Your task to perform on an android device: Go to location settings Image 0: 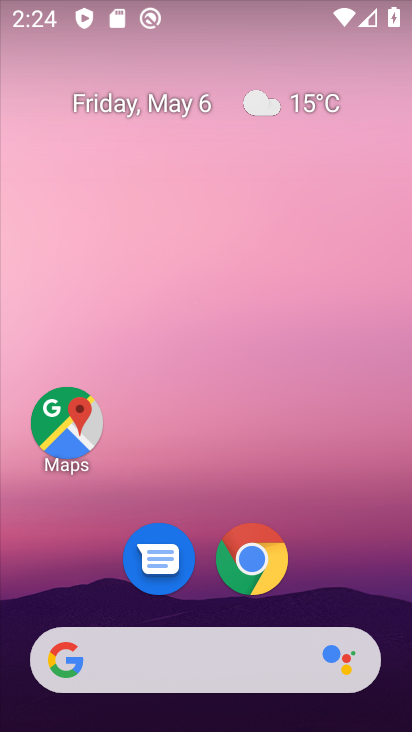
Step 0: drag from (311, 581) to (297, 91)
Your task to perform on an android device: Go to location settings Image 1: 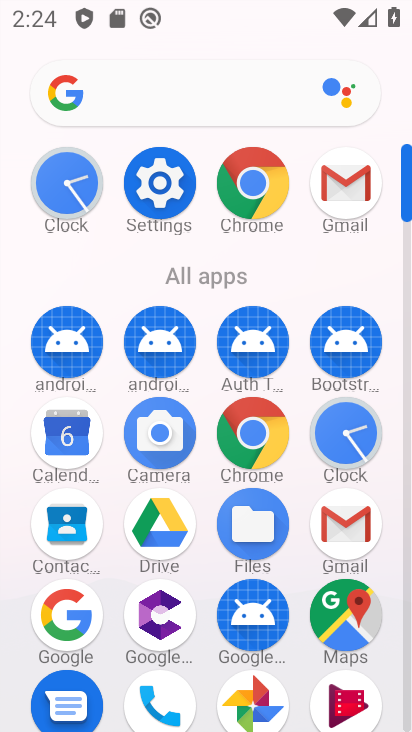
Step 1: click (144, 201)
Your task to perform on an android device: Go to location settings Image 2: 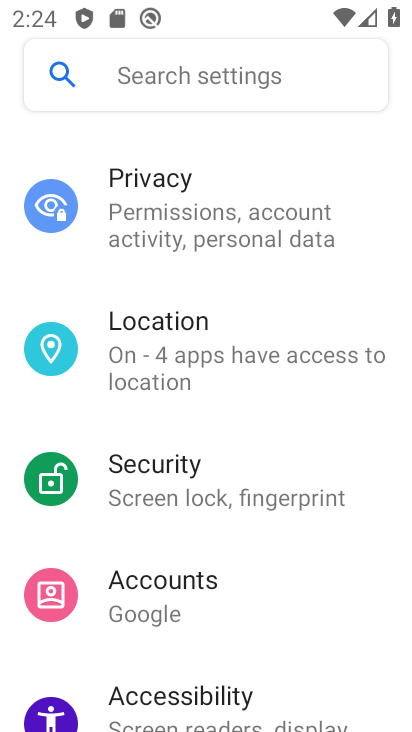
Step 2: click (217, 328)
Your task to perform on an android device: Go to location settings Image 3: 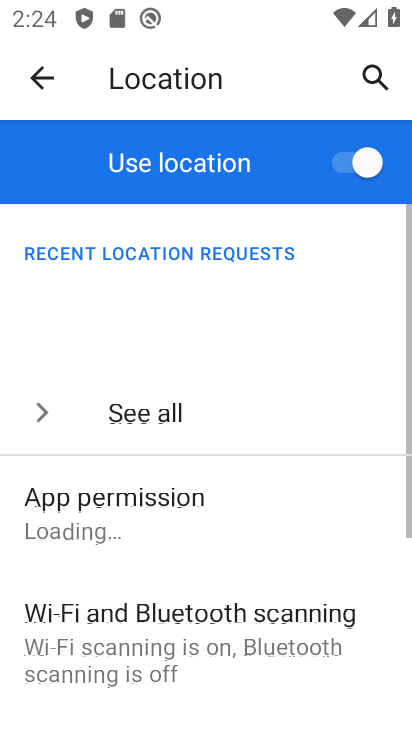
Step 3: task complete